Your task to perform on an android device: toggle wifi Image 0: 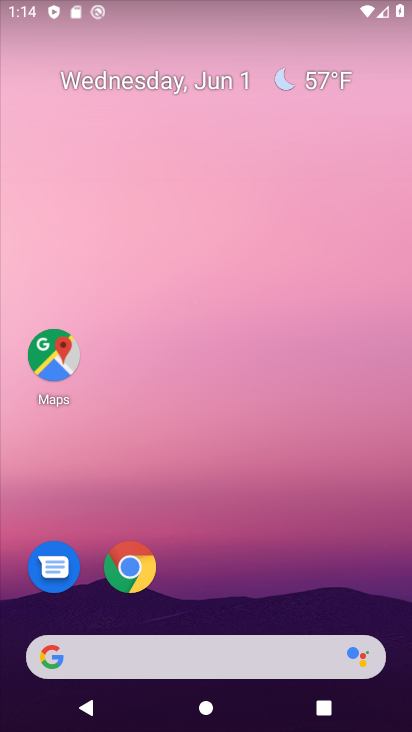
Step 0: drag from (253, 9) to (191, 377)
Your task to perform on an android device: toggle wifi Image 1: 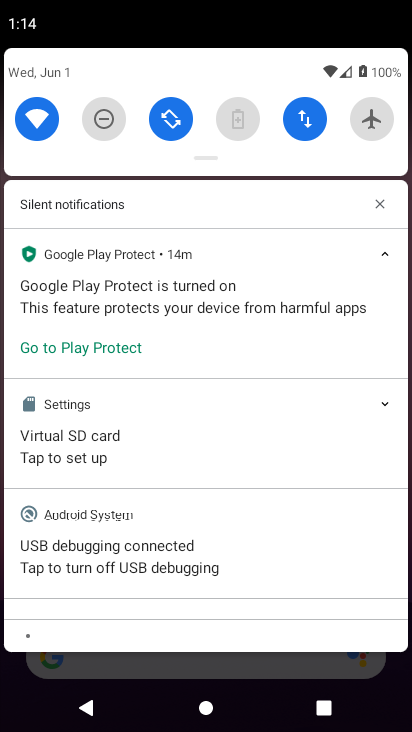
Step 1: click (28, 129)
Your task to perform on an android device: toggle wifi Image 2: 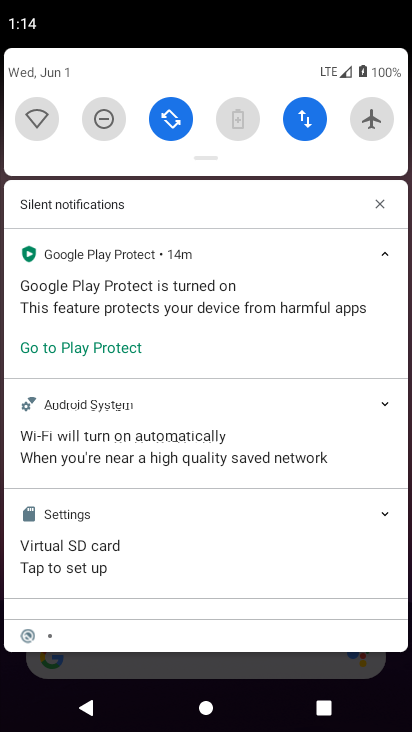
Step 2: task complete